Your task to perform on an android device: set an alarm Image 0: 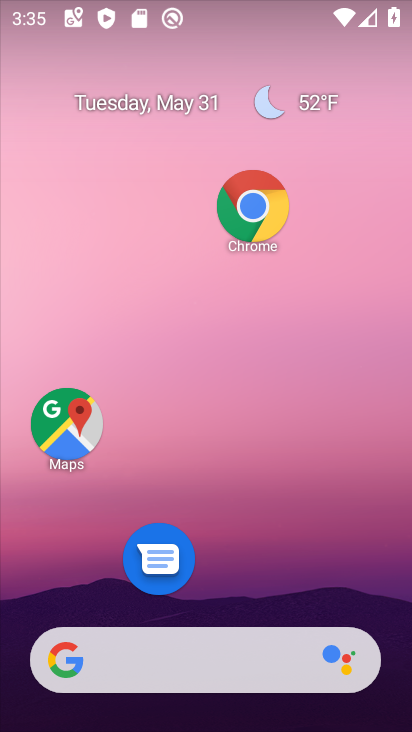
Step 0: drag from (211, 590) to (215, 182)
Your task to perform on an android device: set an alarm Image 1: 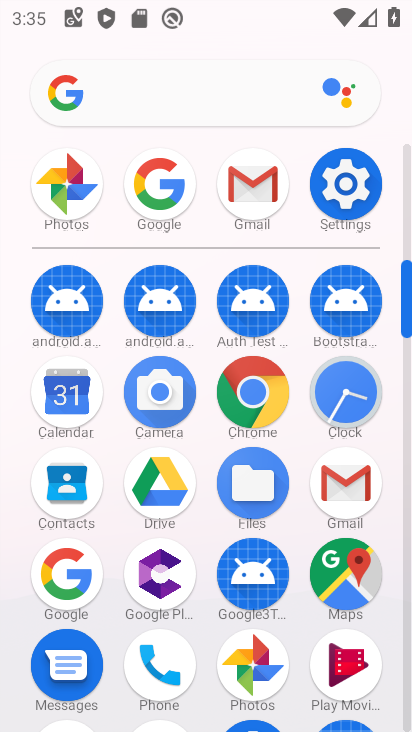
Step 1: click (347, 397)
Your task to perform on an android device: set an alarm Image 2: 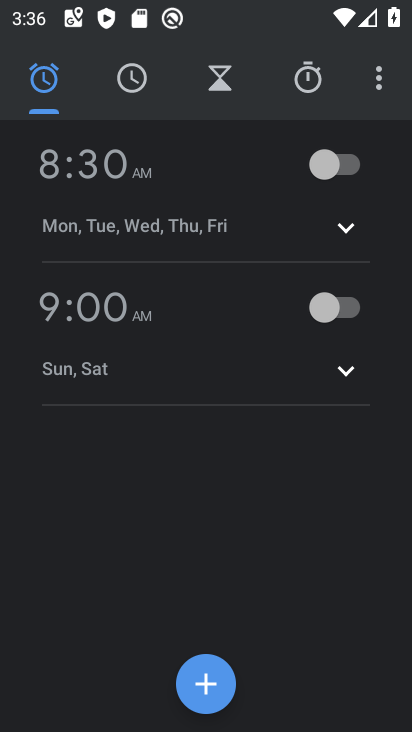
Step 2: click (348, 161)
Your task to perform on an android device: set an alarm Image 3: 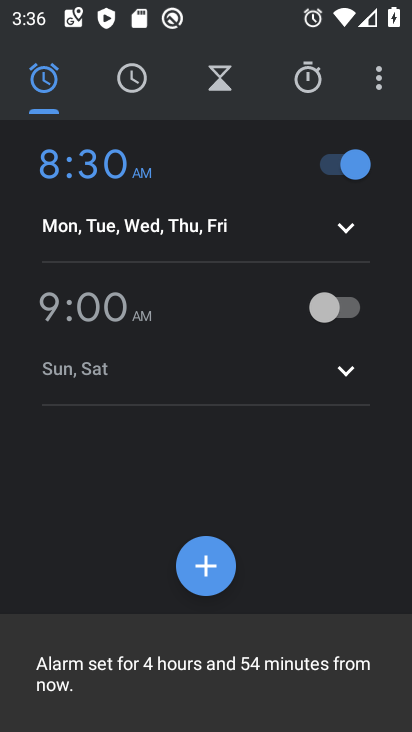
Step 3: task complete